Your task to perform on an android device: change the upload size in google photos Image 0: 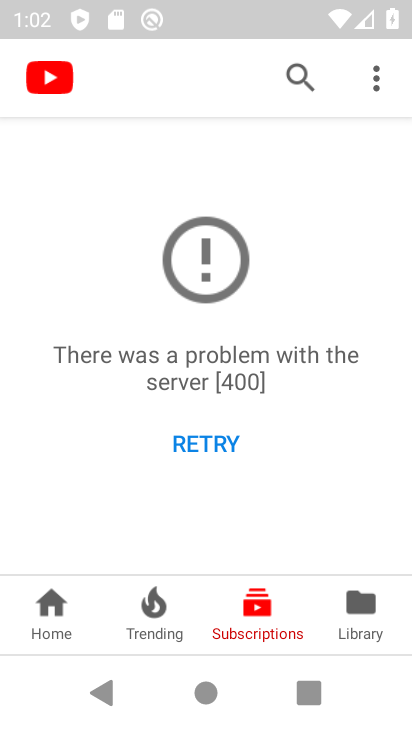
Step 0: press home button
Your task to perform on an android device: change the upload size in google photos Image 1: 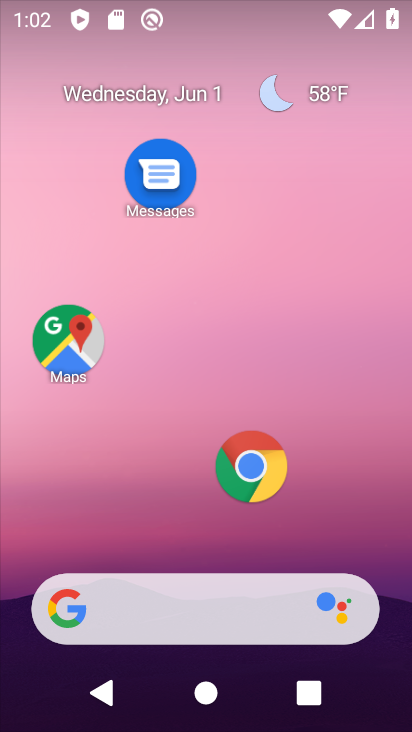
Step 1: drag from (158, 731) to (114, 93)
Your task to perform on an android device: change the upload size in google photos Image 2: 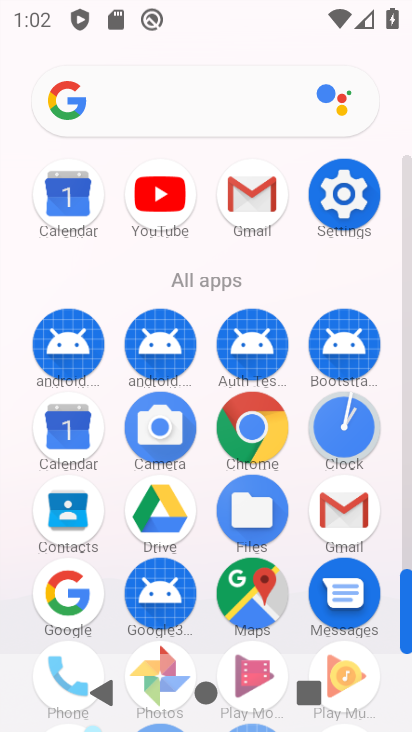
Step 2: drag from (111, 628) to (109, 331)
Your task to perform on an android device: change the upload size in google photos Image 3: 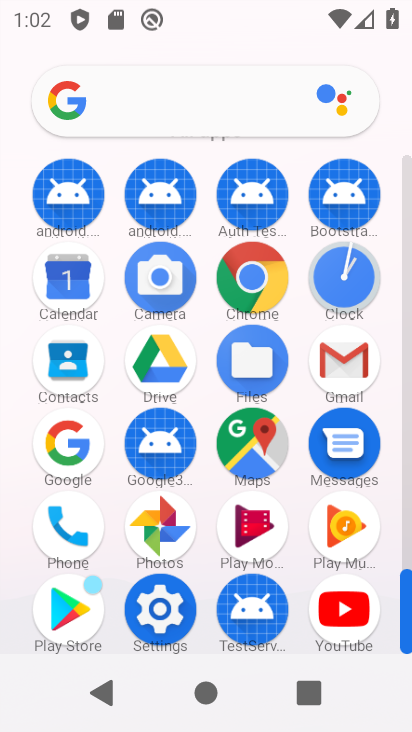
Step 3: click (172, 543)
Your task to perform on an android device: change the upload size in google photos Image 4: 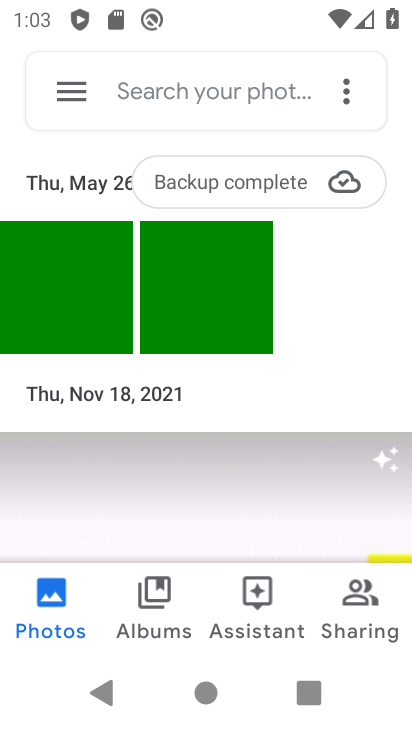
Step 4: click (84, 88)
Your task to perform on an android device: change the upload size in google photos Image 5: 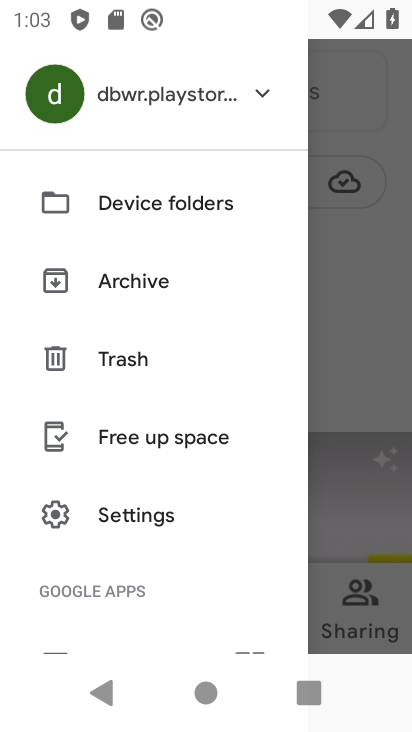
Step 5: click (127, 528)
Your task to perform on an android device: change the upload size in google photos Image 6: 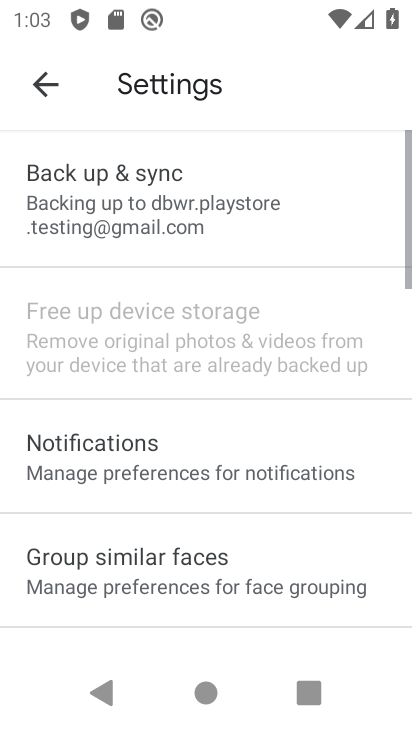
Step 6: click (186, 210)
Your task to perform on an android device: change the upload size in google photos Image 7: 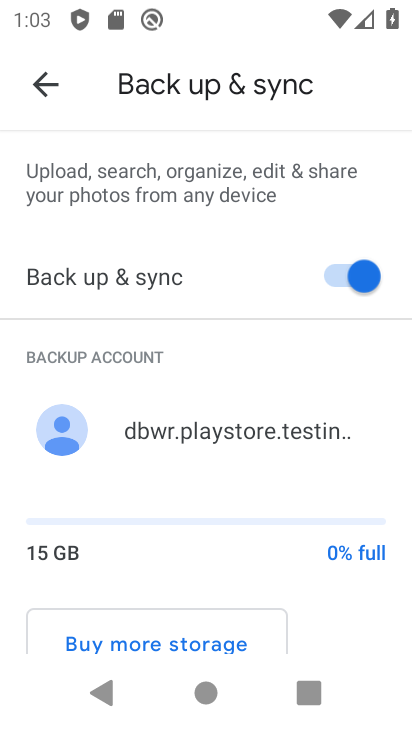
Step 7: drag from (154, 498) to (178, 160)
Your task to perform on an android device: change the upload size in google photos Image 8: 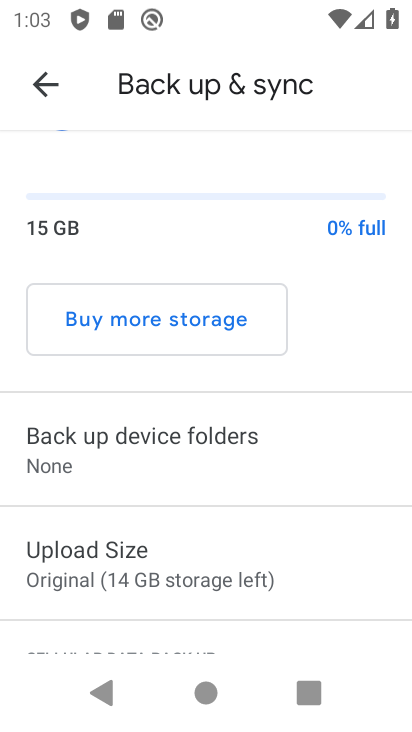
Step 8: drag from (137, 587) to (146, 216)
Your task to perform on an android device: change the upload size in google photos Image 9: 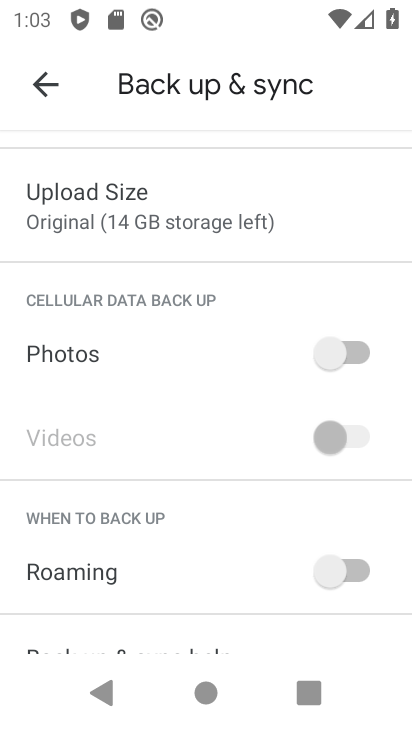
Step 9: click (138, 210)
Your task to perform on an android device: change the upload size in google photos Image 10: 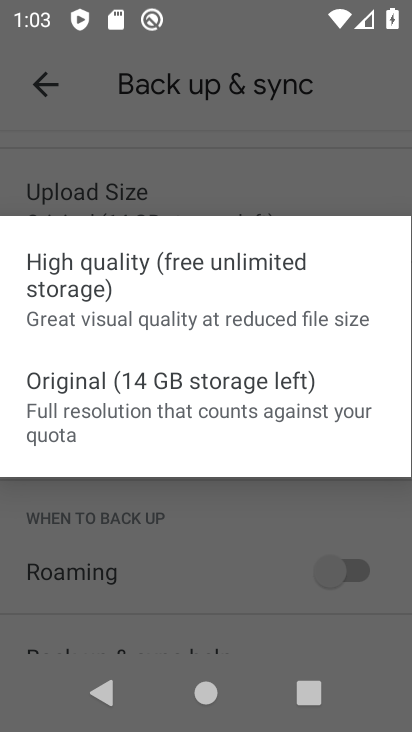
Step 10: click (135, 306)
Your task to perform on an android device: change the upload size in google photos Image 11: 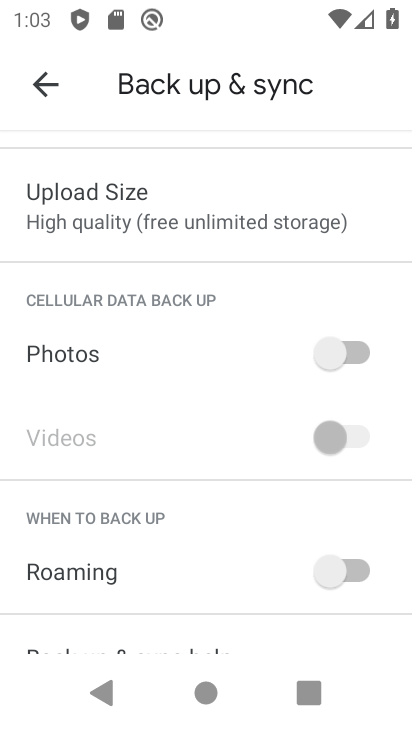
Step 11: task complete